Your task to perform on an android device: open app "McDonald's" (install if not already installed) Image 0: 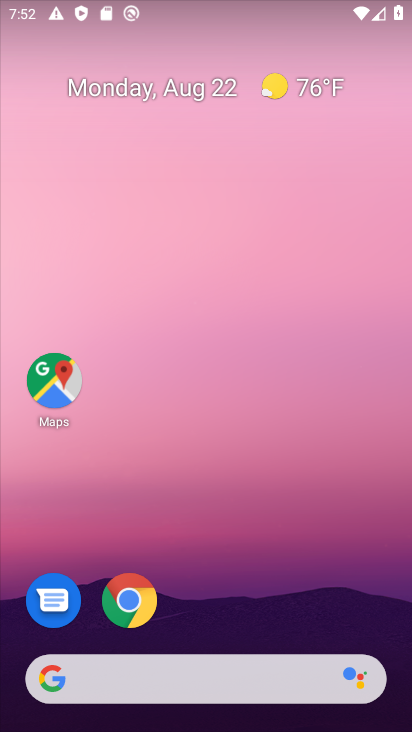
Step 0: drag from (216, 396) to (234, 159)
Your task to perform on an android device: open app "McDonald's" (install if not already installed) Image 1: 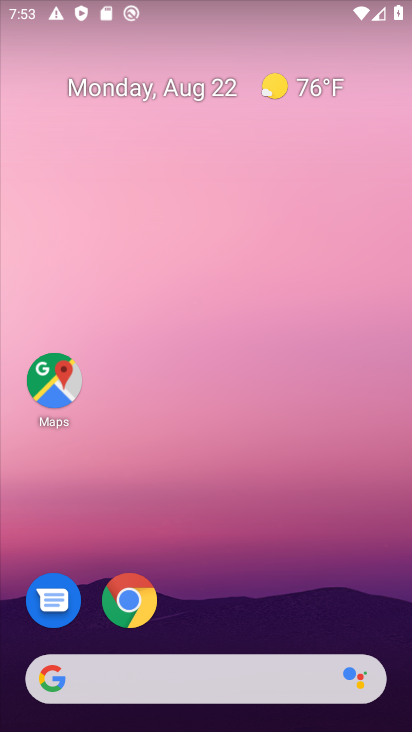
Step 1: drag from (222, 561) to (259, 29)
Your task to perform on an android device: open app "McDonald's" (install if not already installed) Image 2: 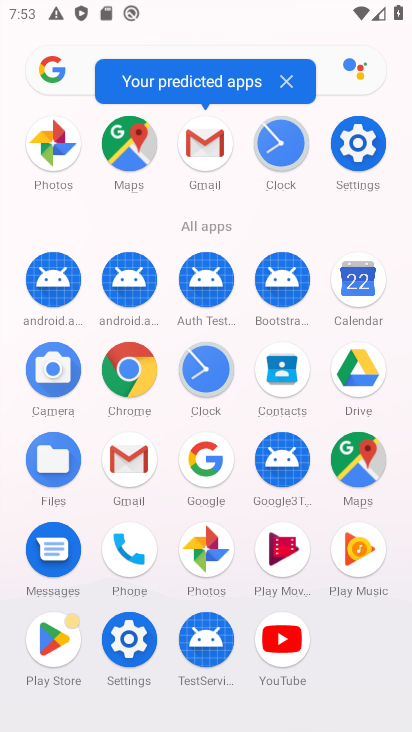
Step 2: click (41, 640)
Your task to perform on an android device: open app "McDonald's" (install if not already installed) Image 3: 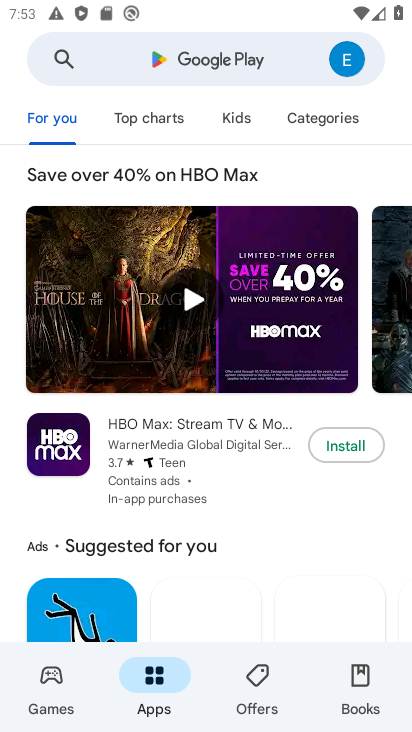
Step 3: click (65, 59)
Your task to perform on an android device: open app "McDonald's" (install if not already installed) Image 4: 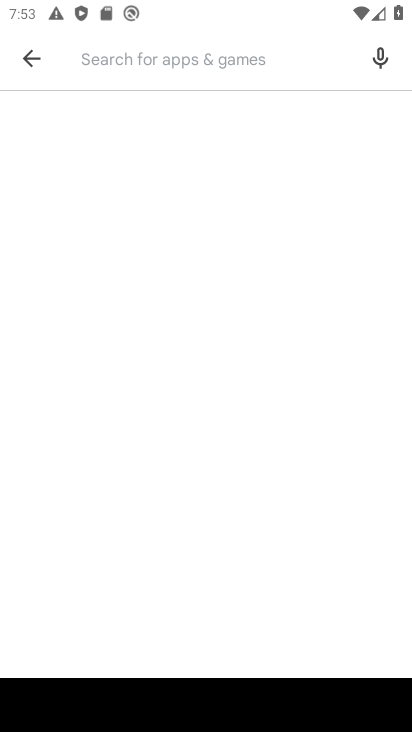
Step 4: type "McDonald's"
Your task to perform on an android device: open app "McDonald's" (install if not already installed) Image 5: 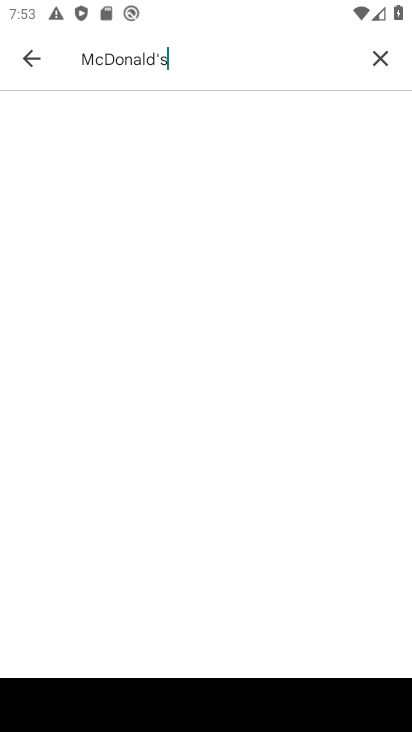
Step 5: type ""
Your task to perform on an android device: open app "McDonald's" (install if not already installed) Image 6: 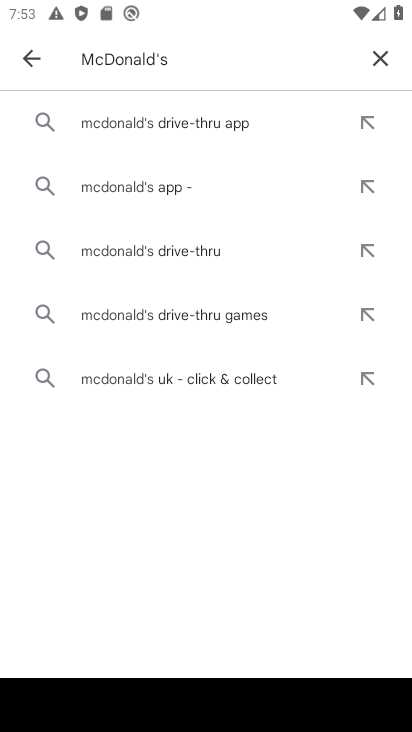
Step 6: click (183, 132)
Your task to perform on an android device: open app "McDonald's" (install if not already installed) Image 7: 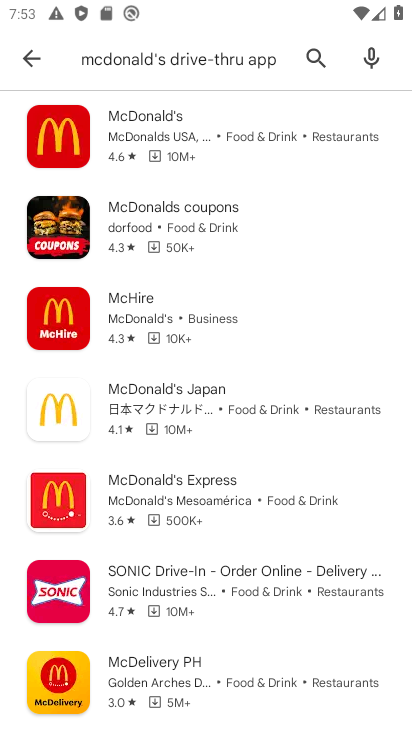
Step 7: click (183, 132)
Your task to perform on an android device: open app "McDonald's" (install if not already installed) Image 8: 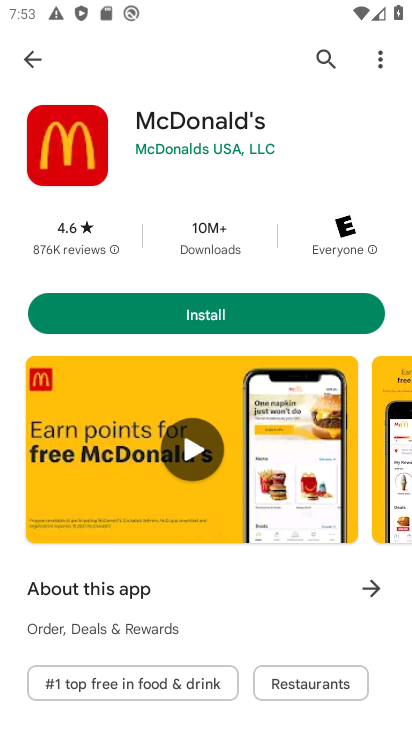
Step 8: click (178, 314)
Your task to perform on an android device: open app "McDonald's" (install if not already installed) Image 9: 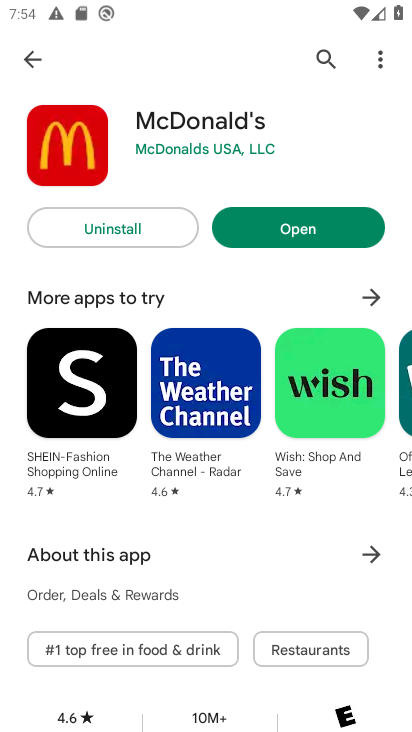
Step 9: click (293, 209)
Your task to perform on an android device: open app "McDonald's" (install if not already installed) Image 10: 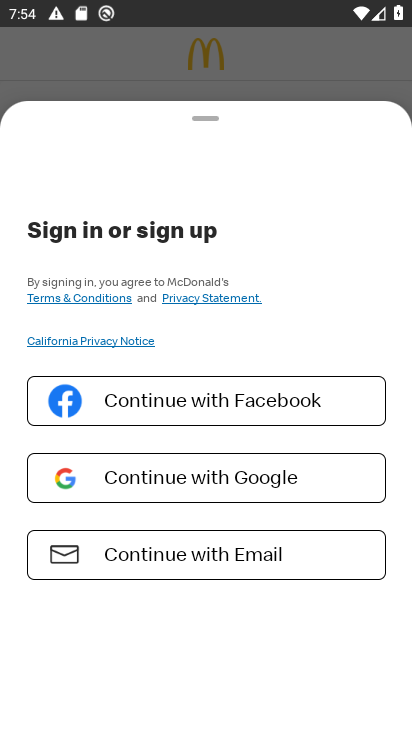
Step 10: task complete